Your task to perform on an android device: Open Google Image 0: 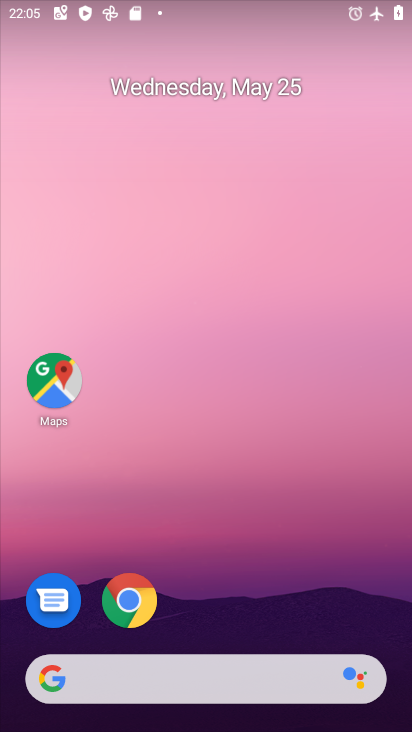
Step 0: drag from (375, 588) to (371, 176)
Your task to perform on an android device: Open Google Image 1: 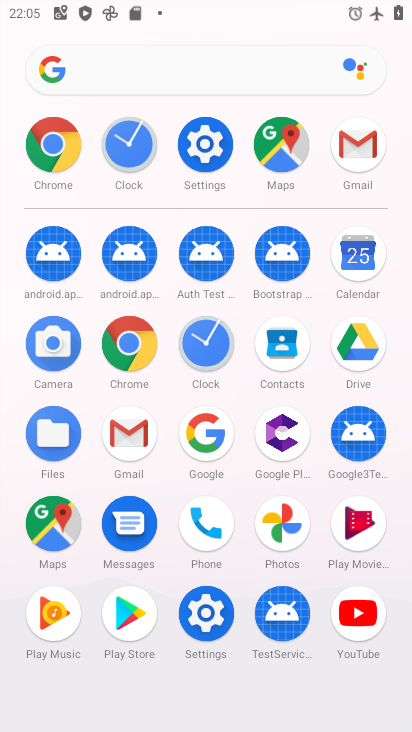
Step 1: click (208, 442)
Your task to perform on an android device: Open Google Image 2: 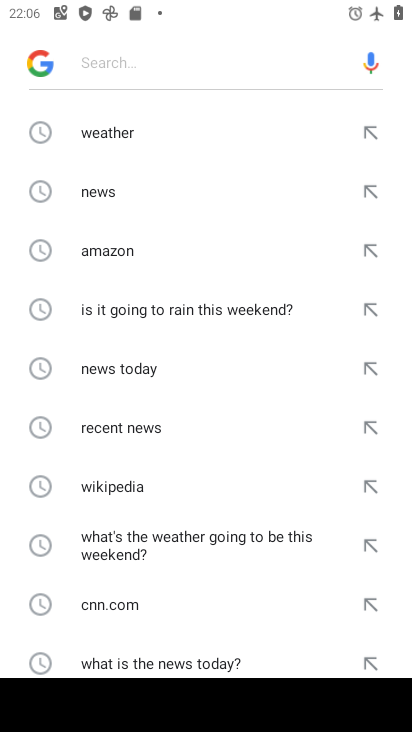
Step 2: task complete